Your task to perform on an android device: What's the weather going to be tomorrow? Image 0: 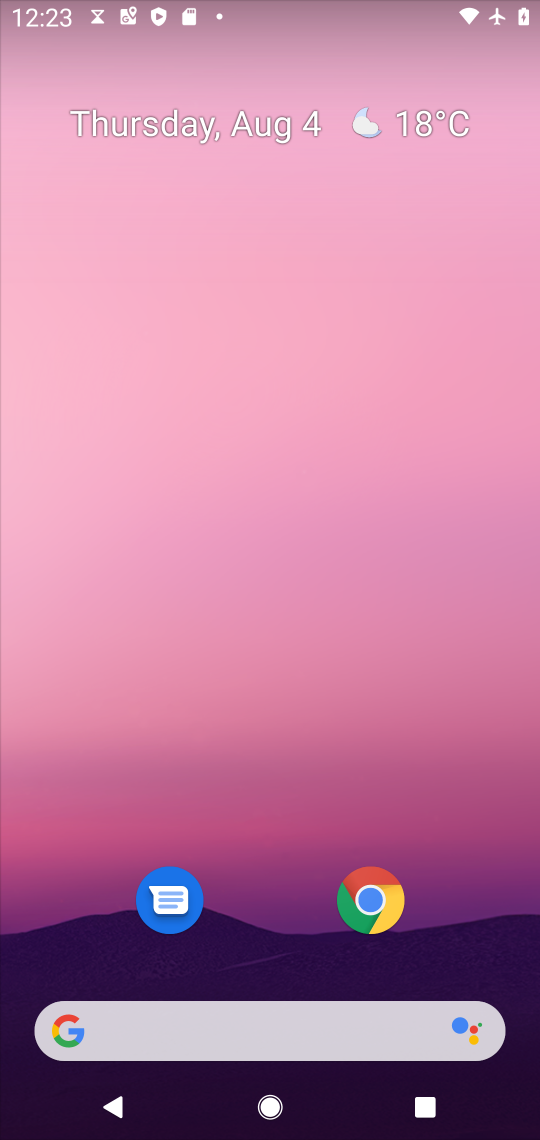
Step 0: press home button
Your task to perform on an android device: What's the weather going to be tomorrow? Image 1: 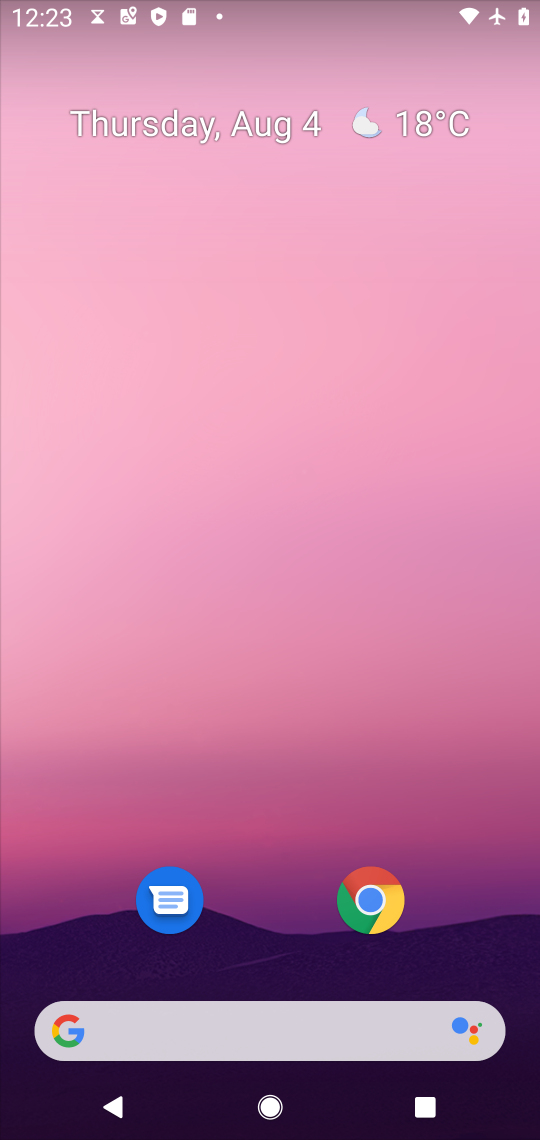
Step 1: drag from (280, 959) to (320, 118)
Your task to perform on an android device: What's the weather going to be tomorrow? Image 2: 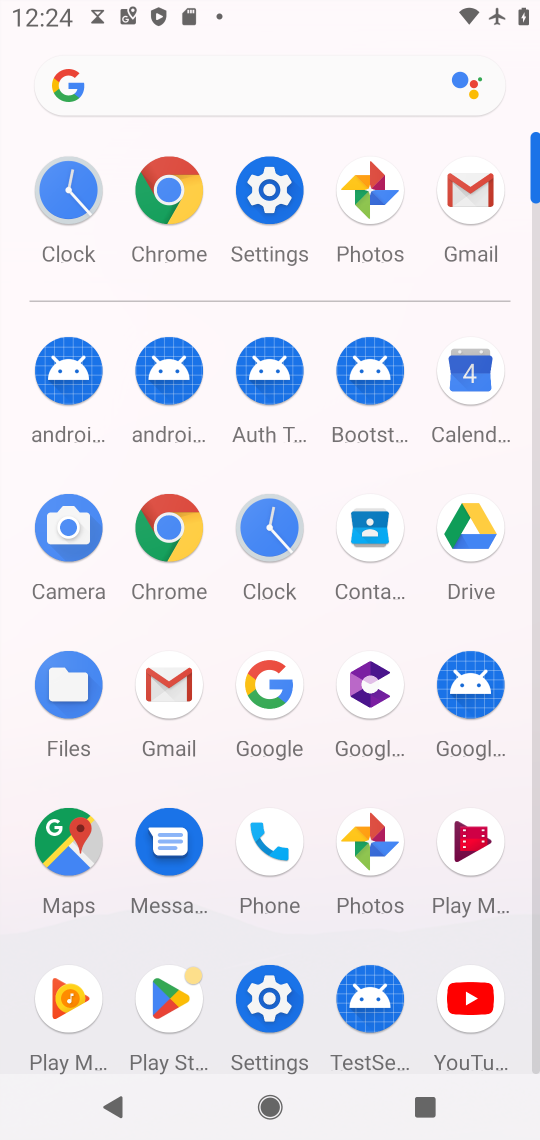
Step 2: click (266, 681)
Your task to perform on an android device: What's the weather going to be tomorrow? Image 3: 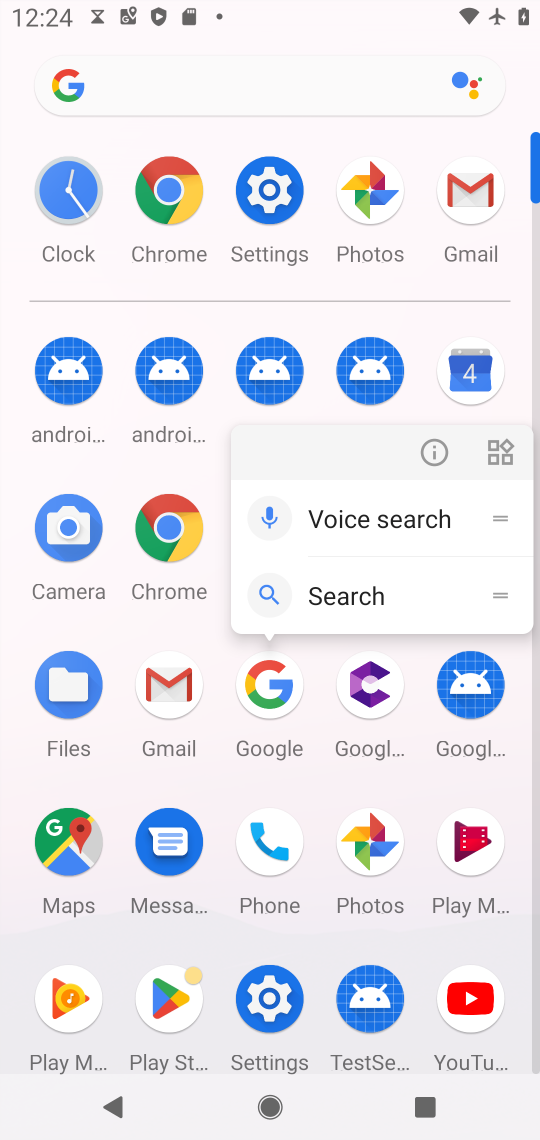
Step 3: click (266, 681)
Your task to perform on an android device: What's the weather going to be tomorrow? Image 4: 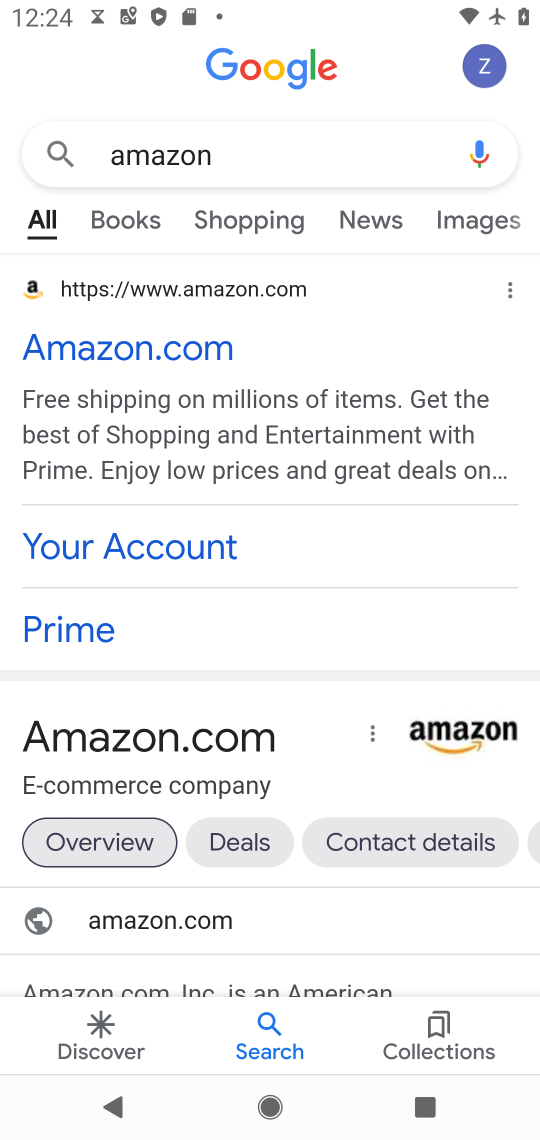
Step 4: drag from (265, 144) to (74, 167)
Your task to perform on an android device: What's the weather going to be tomorrow? Image 5: 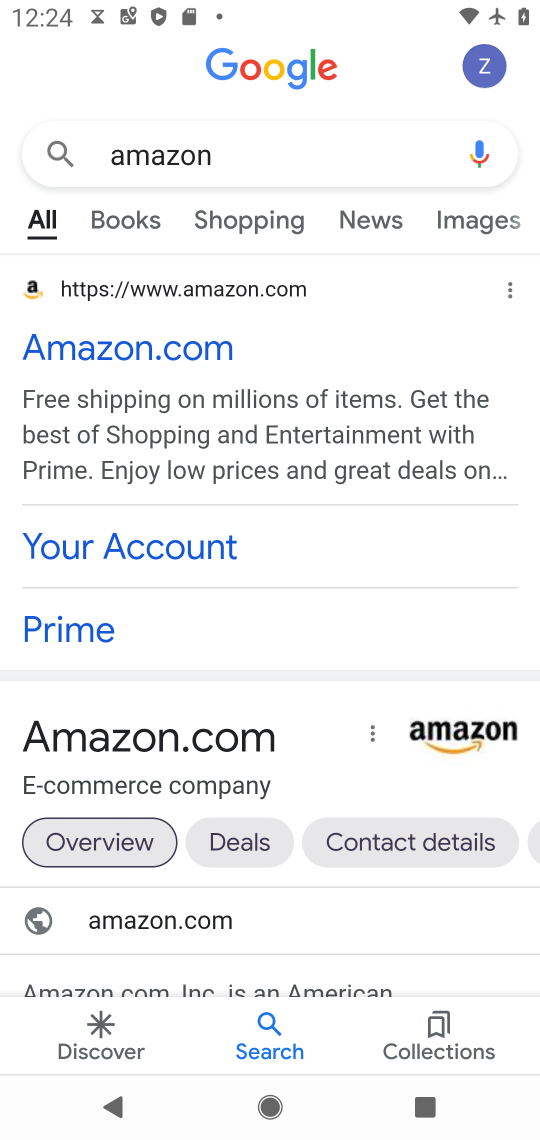
Step 5: drag from (243, 151) to (89, 172)
Your task to perform on an android device: What's the weather going to be tomorrow? Image 6: 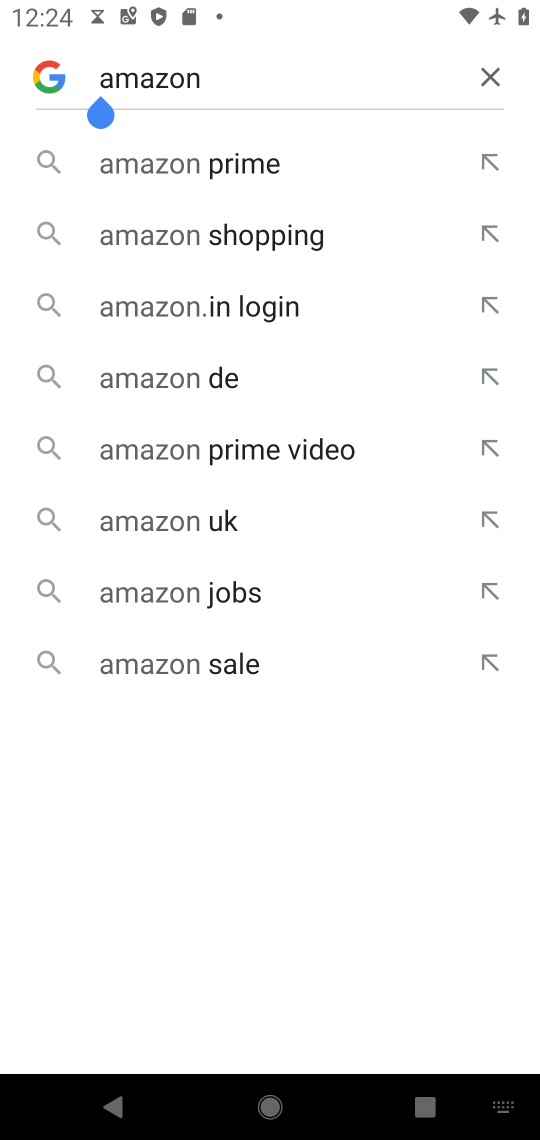
Step 6: click (493, 66)
Your task to perform on an android device: What's the weather going to be tomorrow? Image 7: 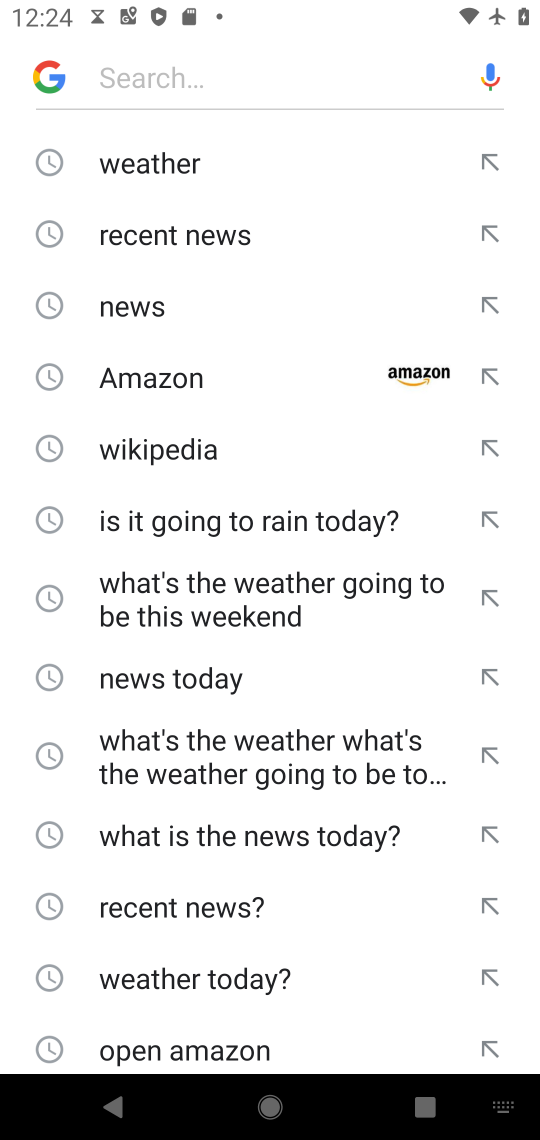
Step 7: type " weather going to be tomorrow?"
Your task to perform on an android device: What's the weather going to be tomorrow? Image 8: 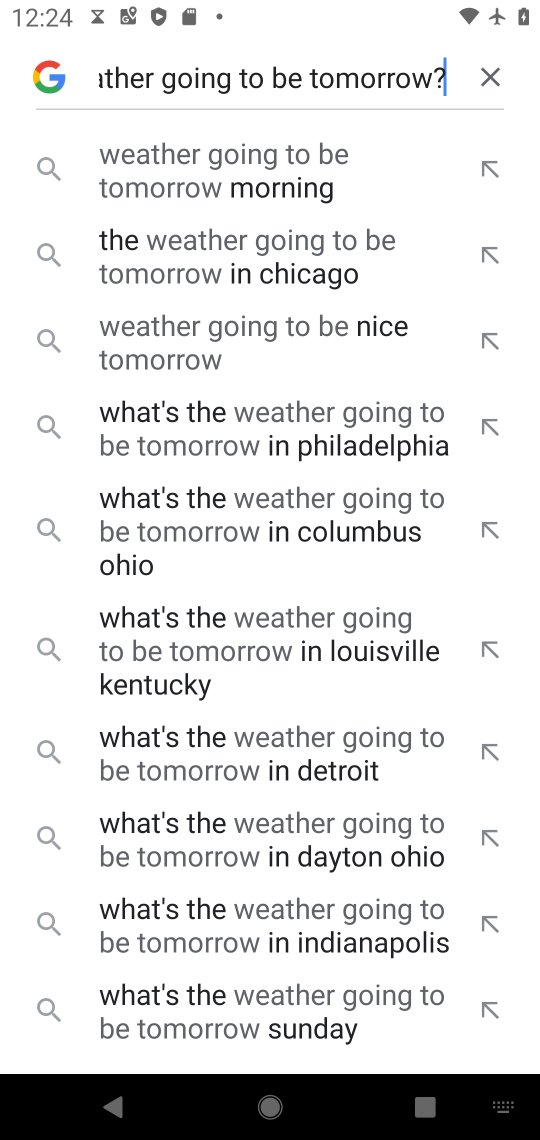
Step 8: press enter
Your task to perform on an android device: What's the weather going to be tomorrow? Image 9: 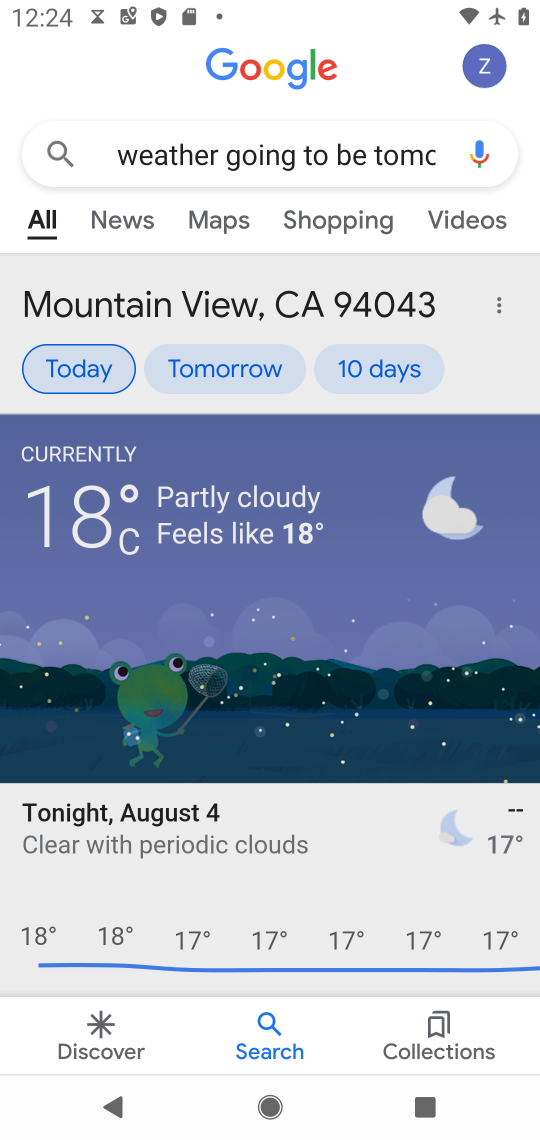
Step 9: task complete